Your task to perform on an android device: What's the weather today? Image 0: 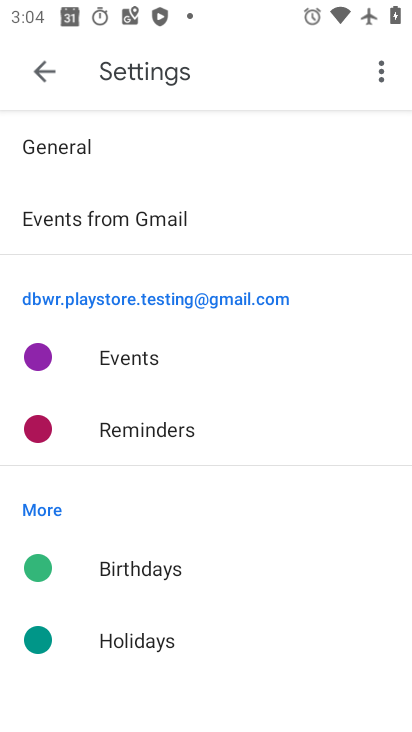
Step 0: press home button
Your task to perform on an android device: What's the weather today? Image 1: 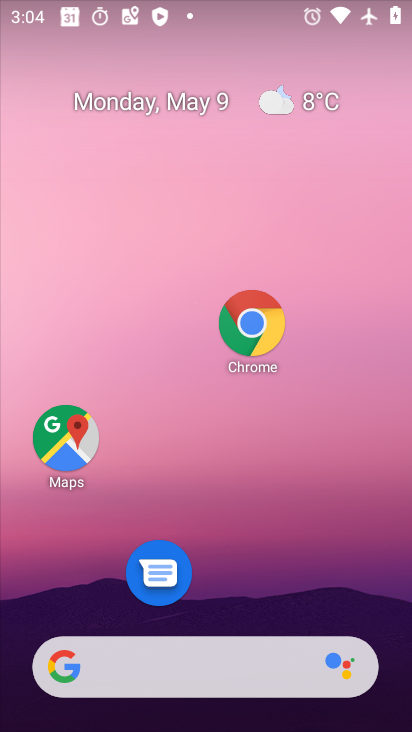
Step 1: click (309, 103)
Your task to perform on an android device: What's the weather today? Image 2: 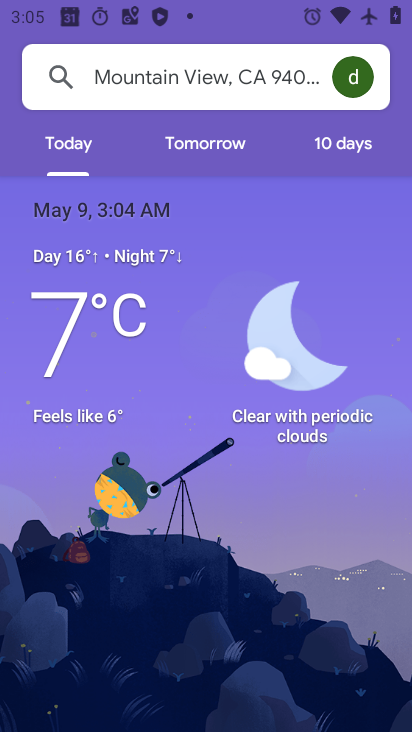
Step 2: task complete